Your task to perform on an android device: Open notification settings Image 0: 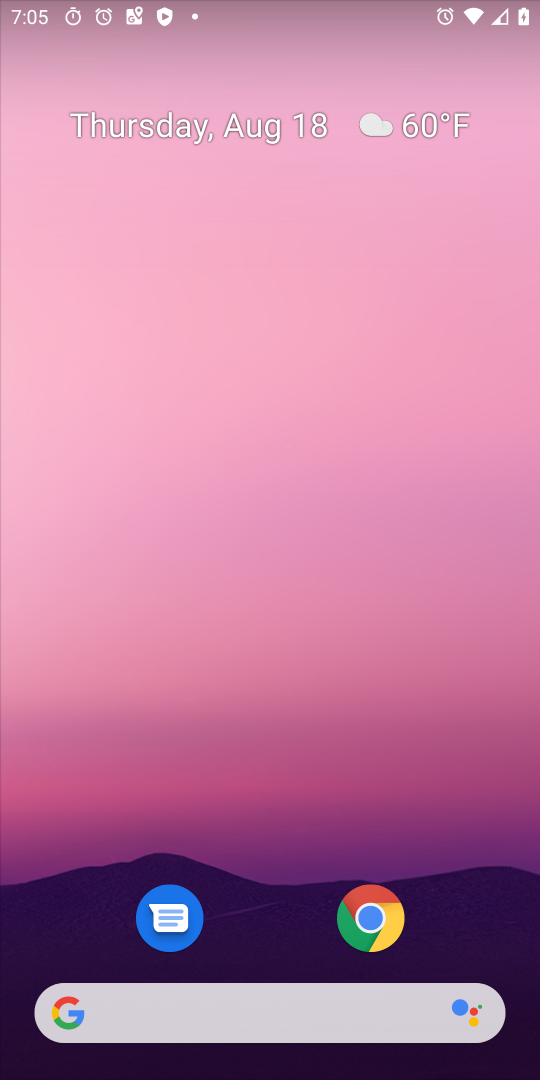
Step 0: drag from (252, 828) to (195, 3)
Your task to perform on an android device: Open notification settings Image 1: 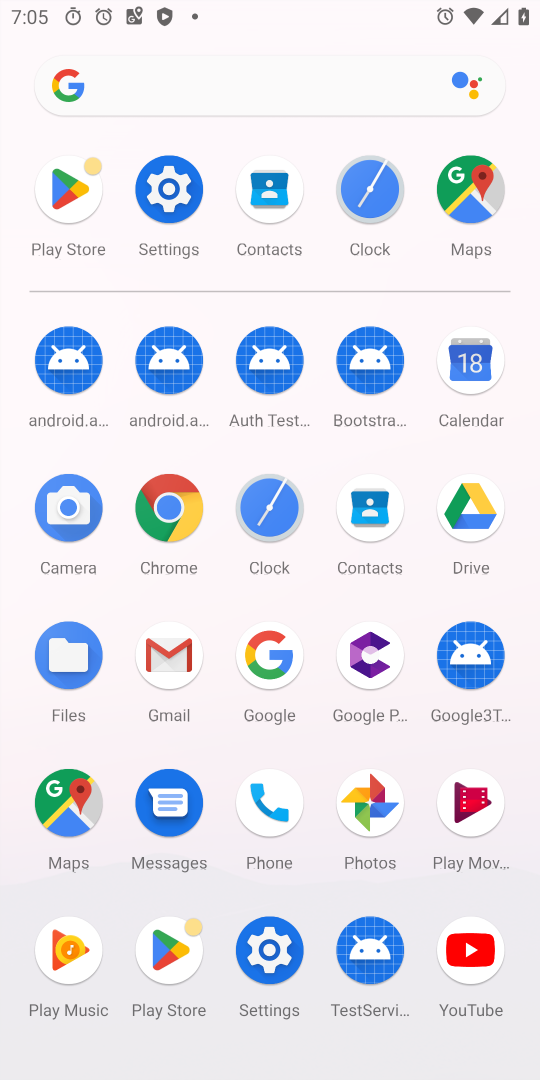
Step 1: click (165, 195)
Your task to perform on an android device: Open notification settings Image 2: 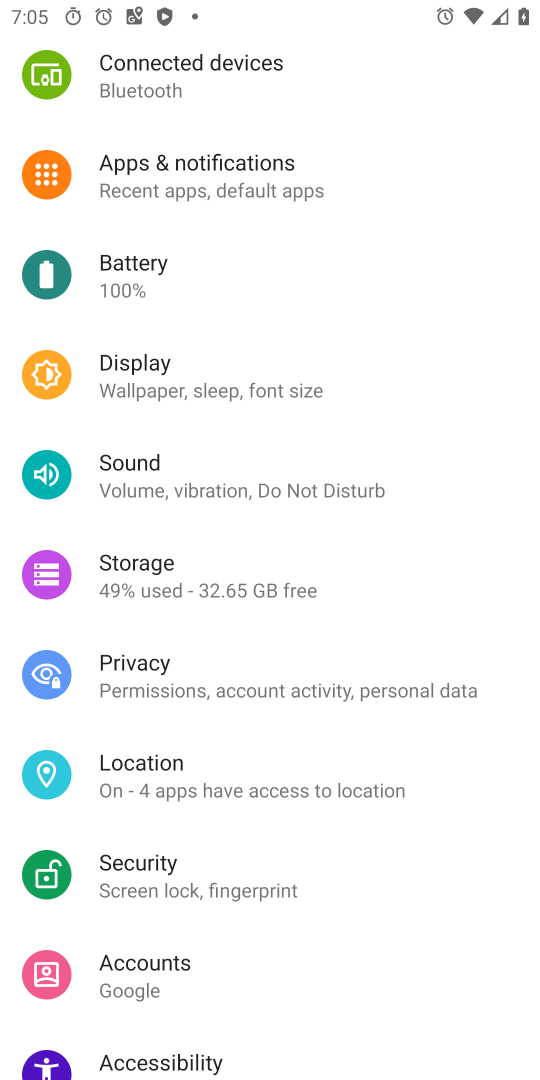
Step 2: click (228, 193)
Your task to perform on an android device: Open notification settings Image 3: 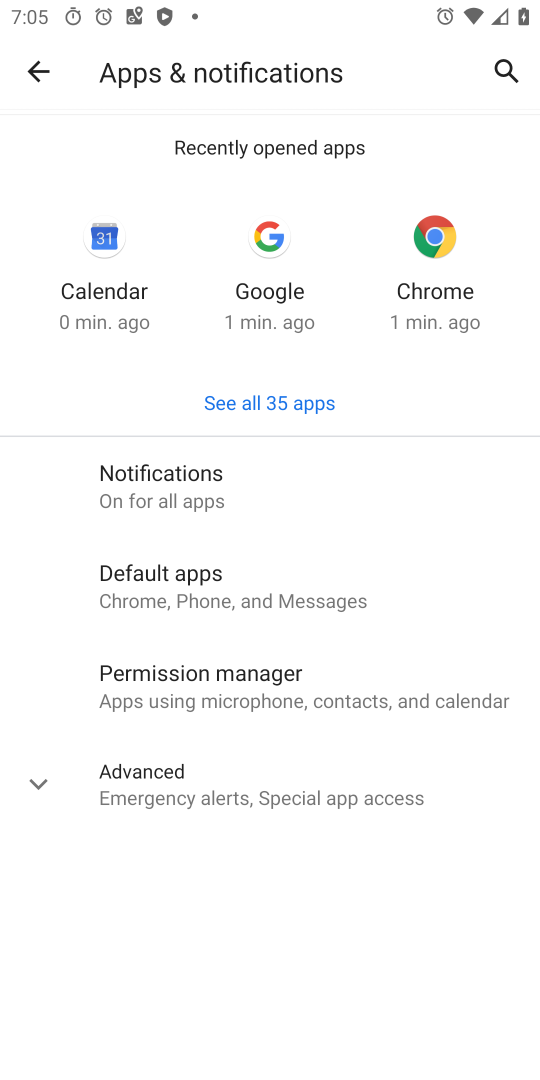
Step 3: click (175, 472)
Your task to perform on an android device: Open notification settings Image 4: 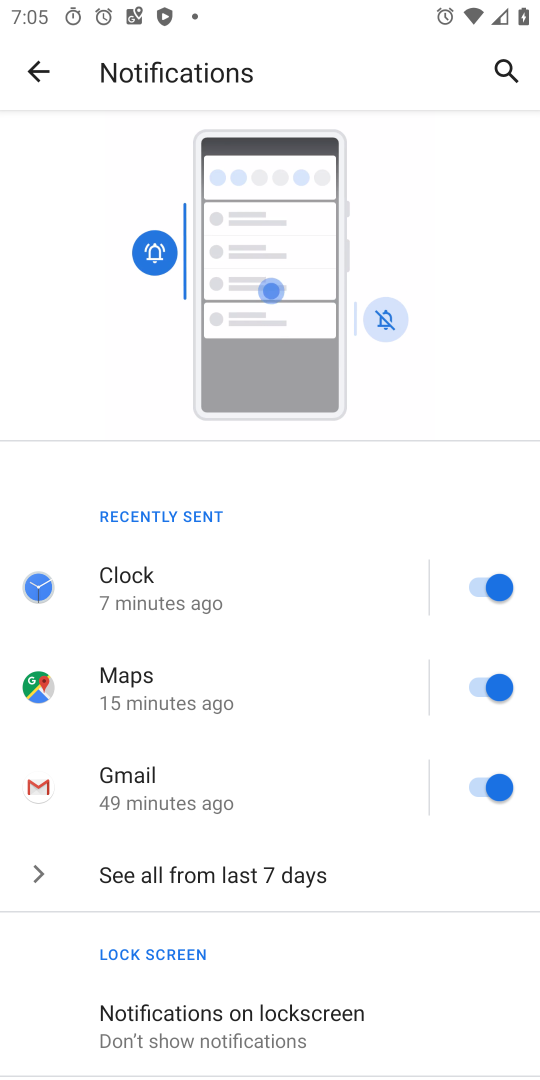
Step 4: task complete